Your task to perform on an android device: read, delete, or share a saved page in the chrome app Image 0: 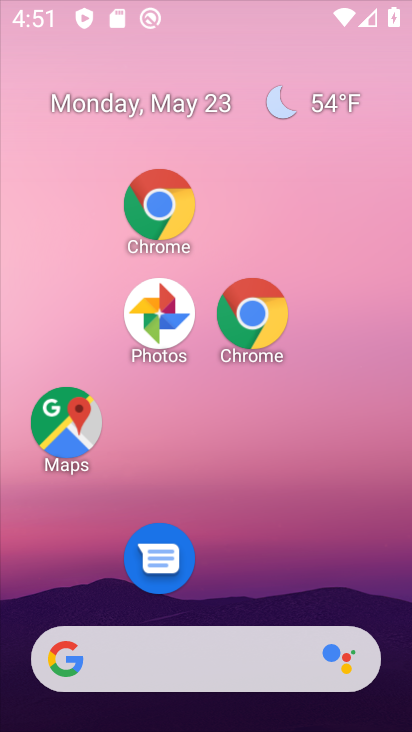
Step 0: drag from (255, 691) to (179, 107)
Your task to perform on an android device: read, delete, or share a saved page in the chrome app Image 1: 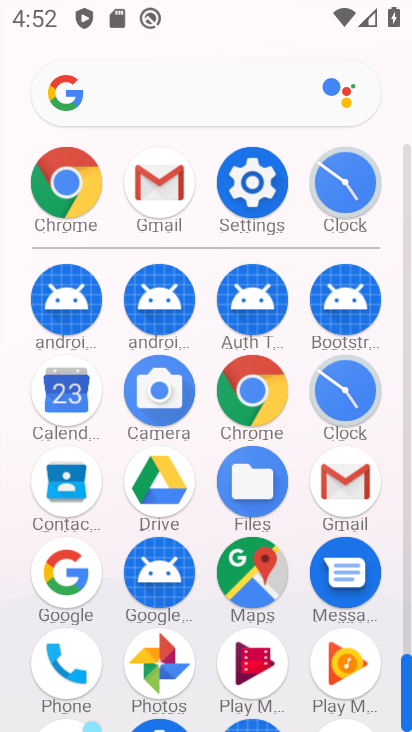
Step 1: click (60, 191)
Your task to perform on an android device: read, delete, or share a saved page in the chrome app Image 2: 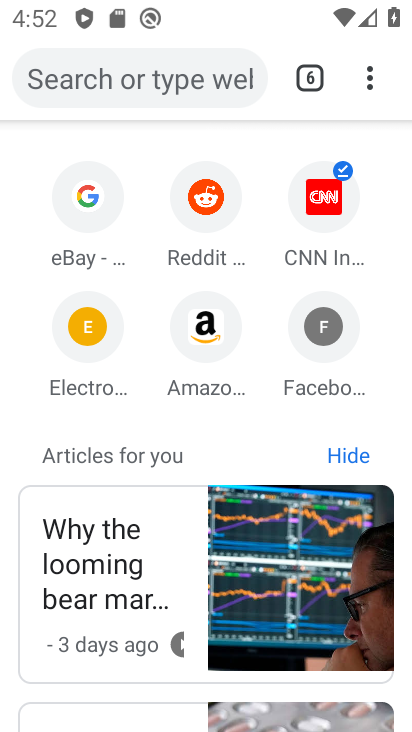
Step 2: drag from (369, 79) to (80, 511)
Your task to perform on an android device: read, delete, or share a saved page in the chrome app Image 3: 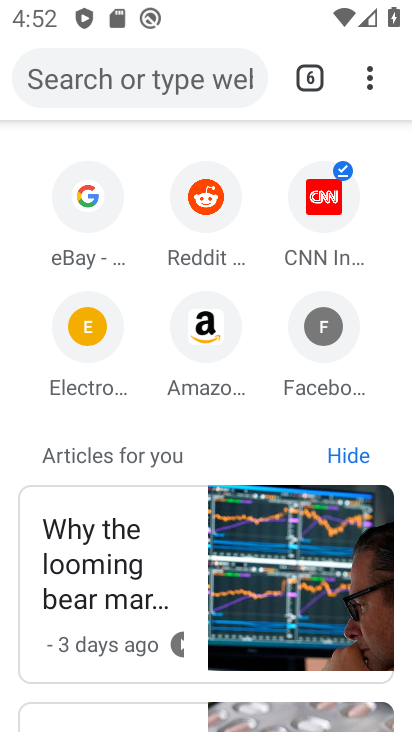
Step 3: click (80, 511)
Your task to perform on an android device: read, delete, or share a saved page in the chrome app Image 4: 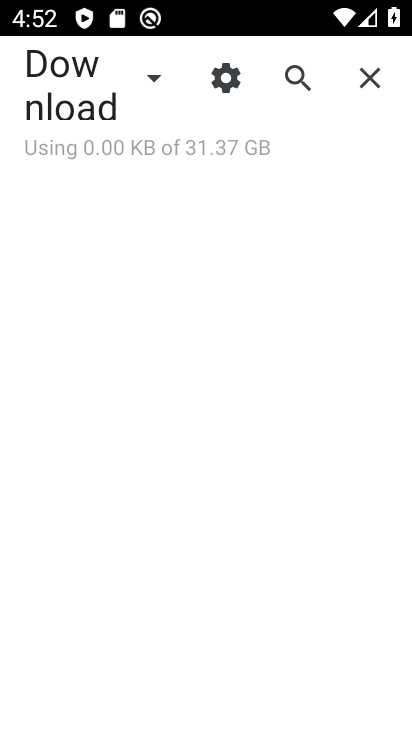
Step 4: click (147, 74)
Your task to perform on an android device: read, delete, or share a saved page in the chrome app Image 5: 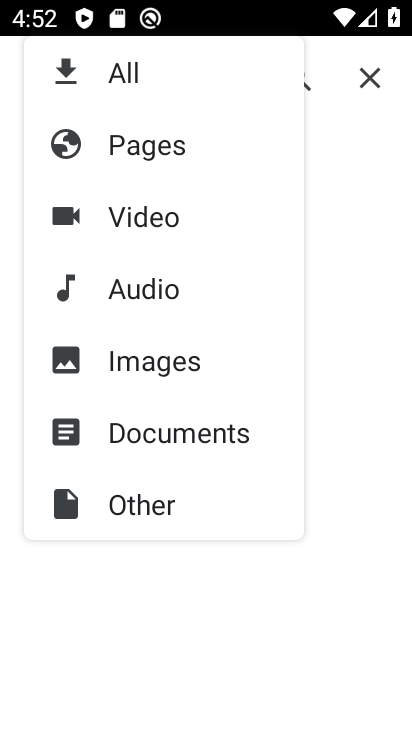
Step 5: click (134, 141)
Your task to perform on an android device: read, delete, or share a saved page in the chrome app Image 6: 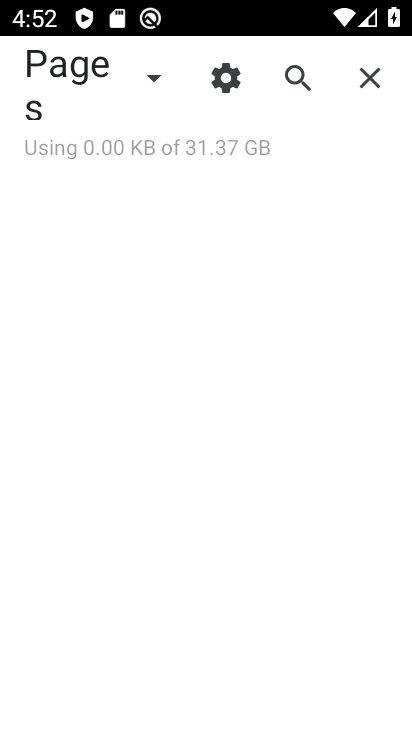
Step 6: task complete